Your task to perform on an android device: toggle priority inbox in the gmail app Image 0: 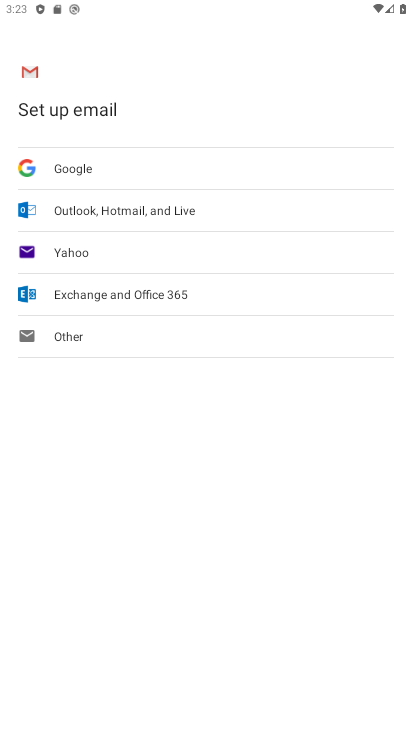
Step 0: click (116, 171)
Your task to perform on an android device: toggle priority inbox in the gmail app Image 1: 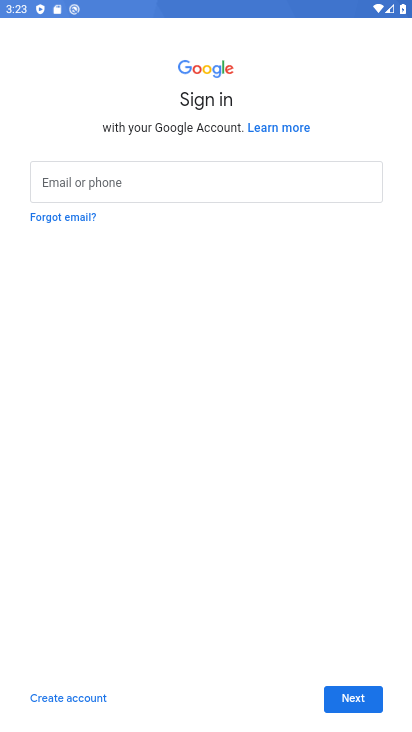
Step 1: click (368, 695)
Your task to perform on an android device: toggle priority inbox in the gmail app Image 2: 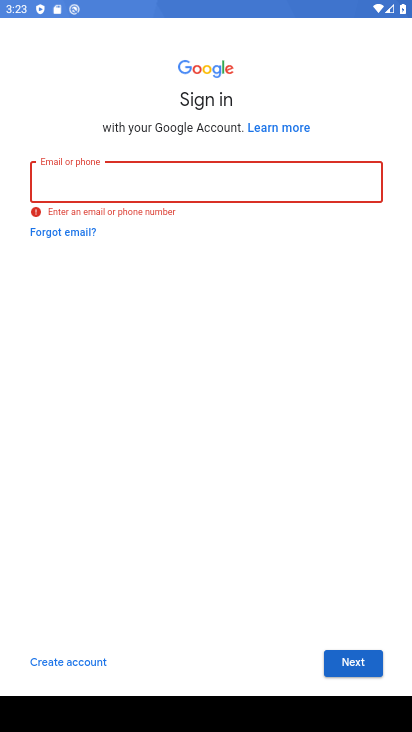
Step 2: task complete